Your task to perform on an android device: turn off wifi Image 0: 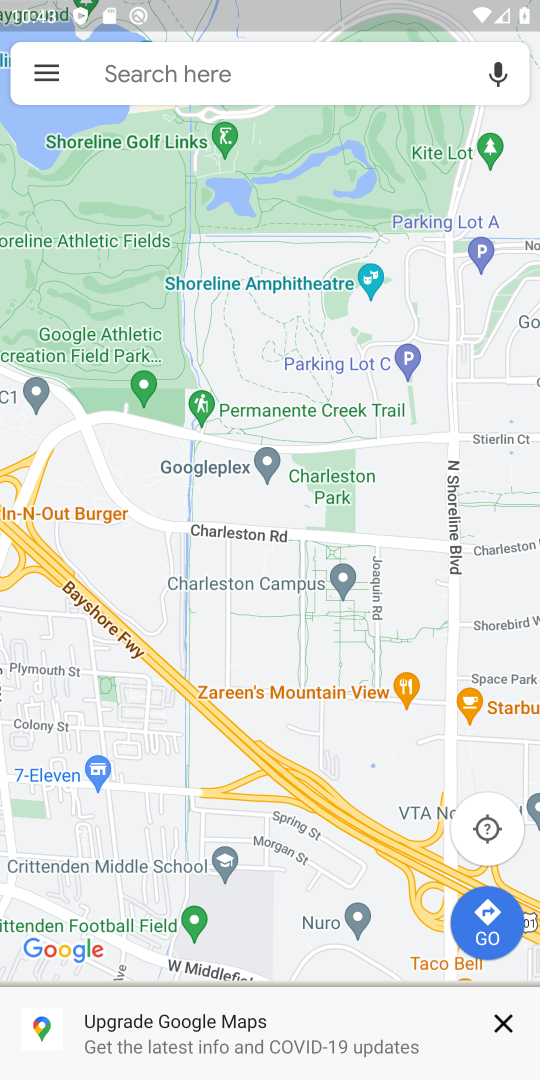
Step 0: press home button
Your task to perform on an android device: turn off wifi Image 1: 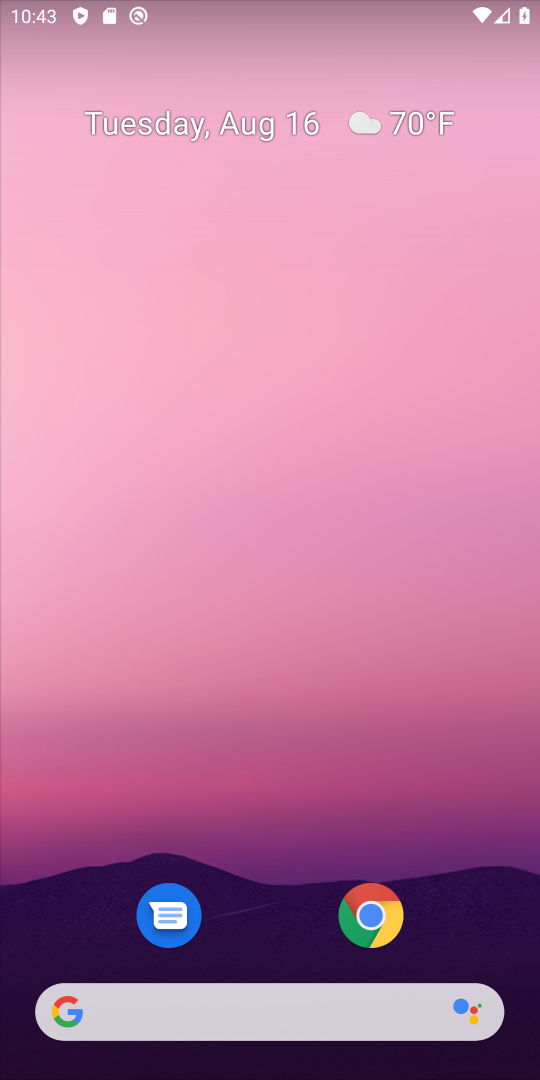
Step 1: drag from (247, 978) to (177, 74)
Your task to perform on an android device: turn off wifi Image 2: 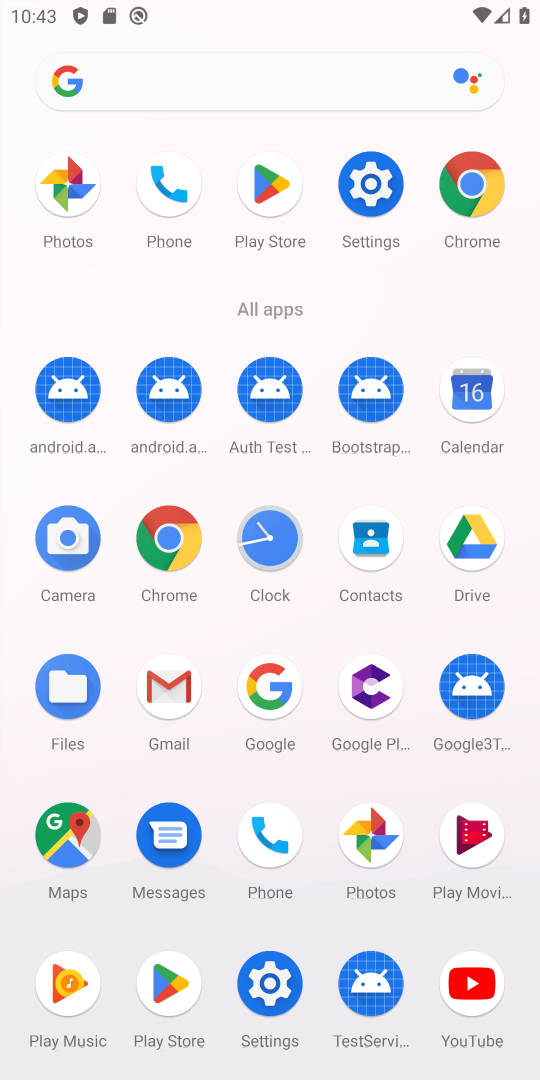
Step 2: click (260, 977)
Your task to perform on an android device: turn off wifi Image 3: 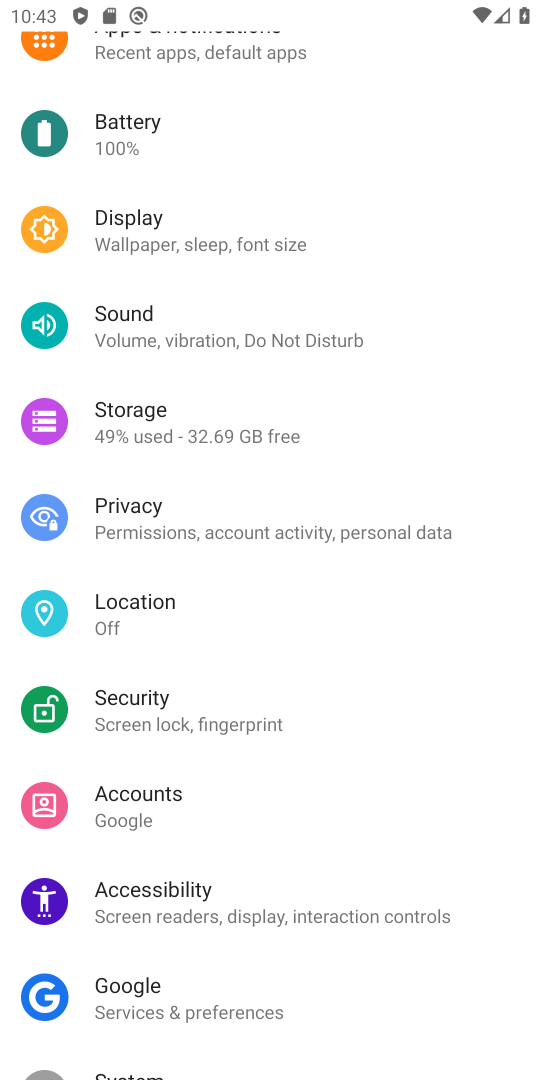
Step 3: drag from (253, 331) to (178, 829)
Your task to perform on an android device: turn off wifi Image 4: 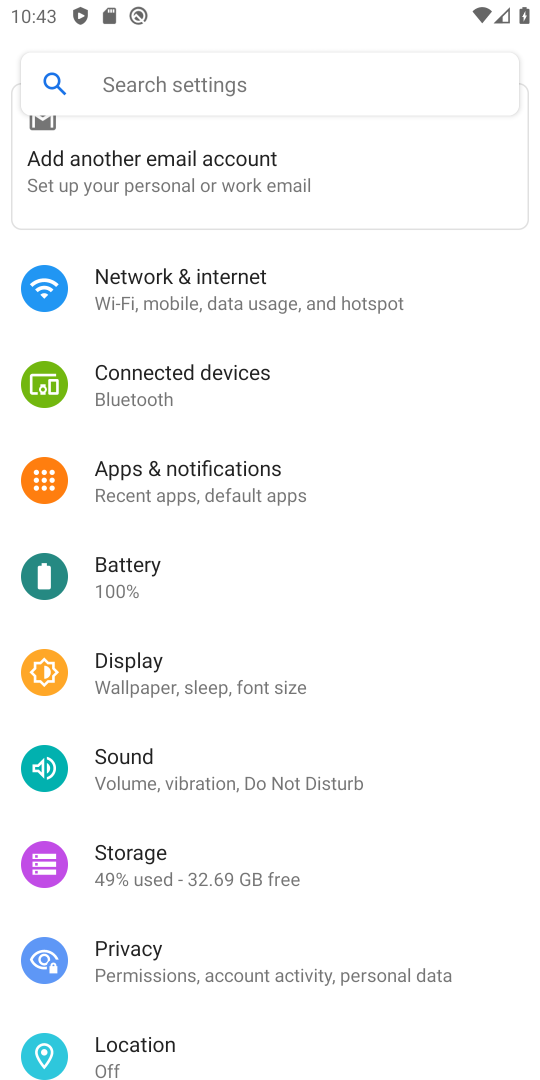
Step 4: click (145, 317)
Your task to perform on an android device: turn off wifi Image 5: 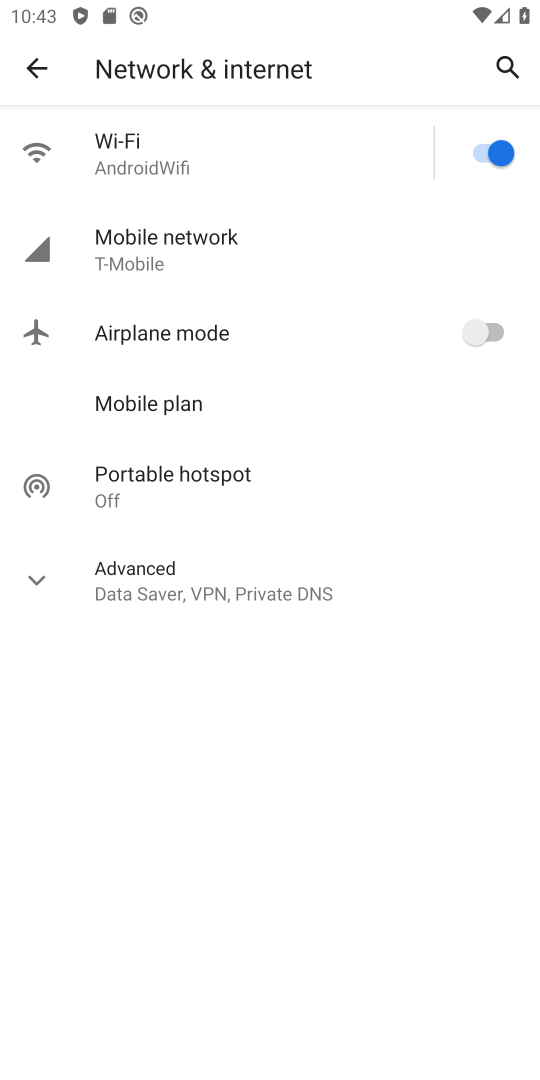
Step 5: click (484, 169)
Your task to perform on an android device: turn off wifi Image 6: 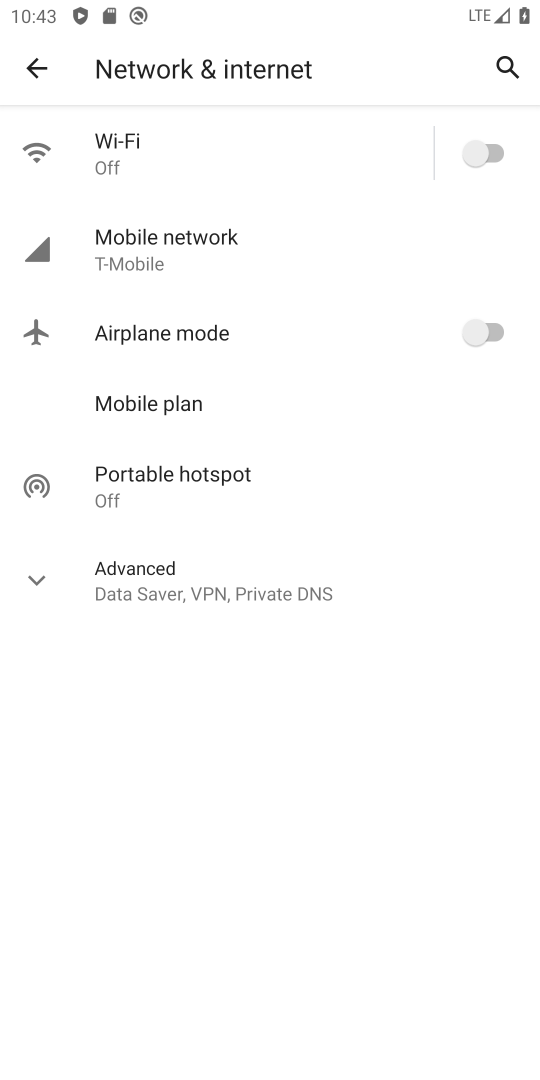
Step 6: task complete